Your task to perform on an android device: Go to accessibility settings Image 0: 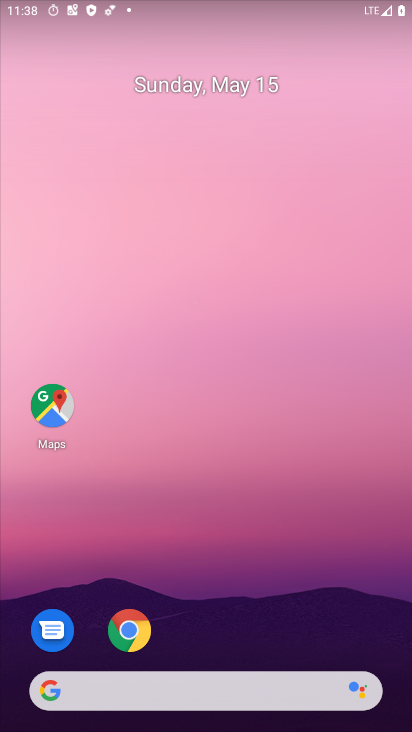
Step 0: drag from (197, 562) to (301, 114)
Your task to perform on an android device: Go to accessibility settings Image 1: 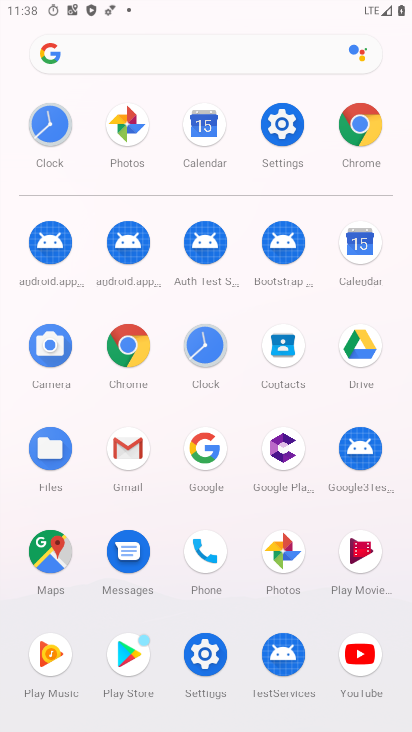
Step 1: click (283, 126)
Your task to perform on an android device: Go to accessibility settings Image 2: 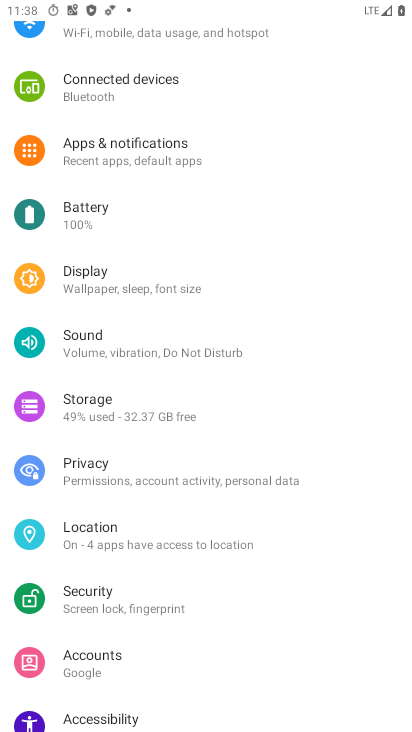
Step 2: drag from (130, 681) to (203, 349)
Your task to perform on an android device: Go to accessibility settings Image 3: 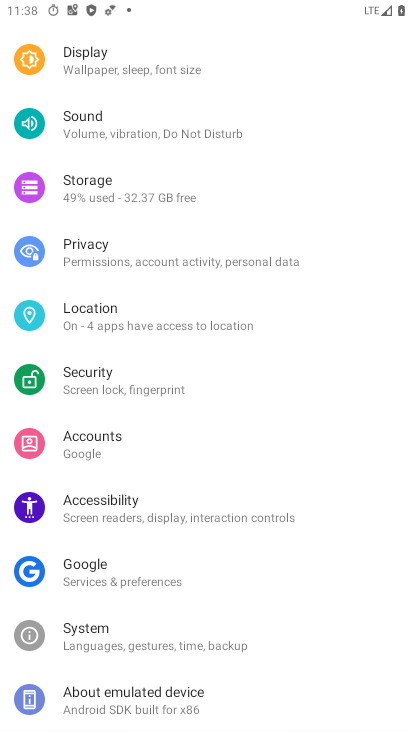
Step 3: click (133, 497)
Your task to perform on an android device: Go to accessibility settings Image 4: 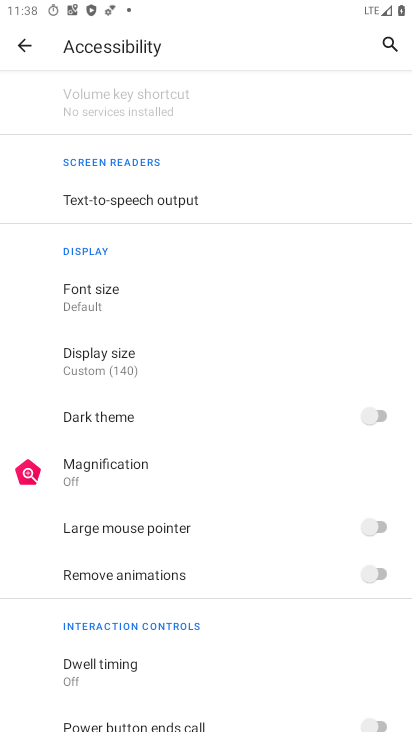
Step 4: task complete